Your task to perform on an android device: manage bookmarks in the chrome app Image 0: 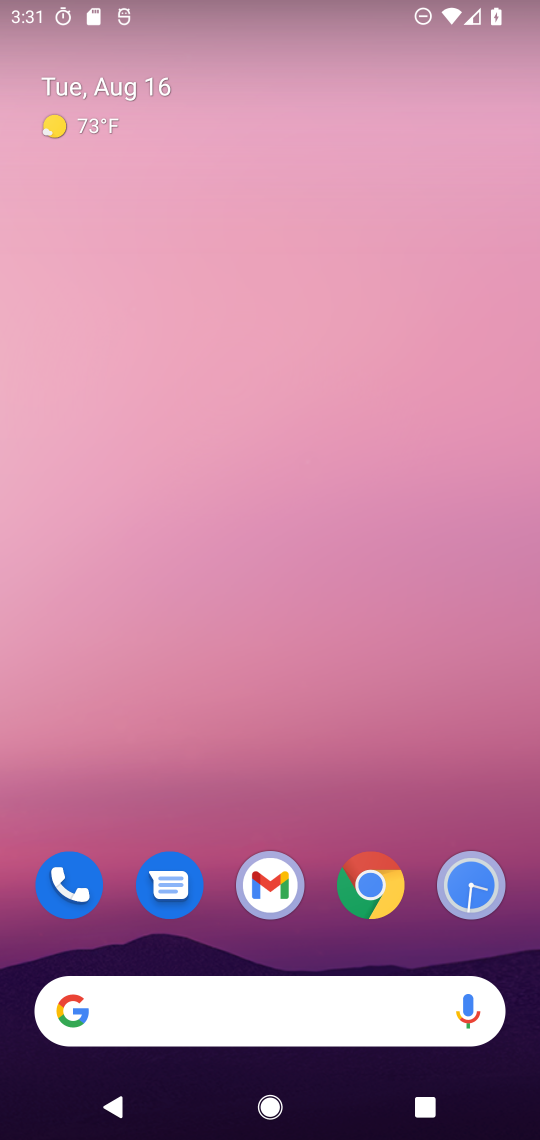
Step 0: drag from (196, 943) to (204, 124)
Your task to perform on an android device: manage bookmarks in the chrome app Image 1: 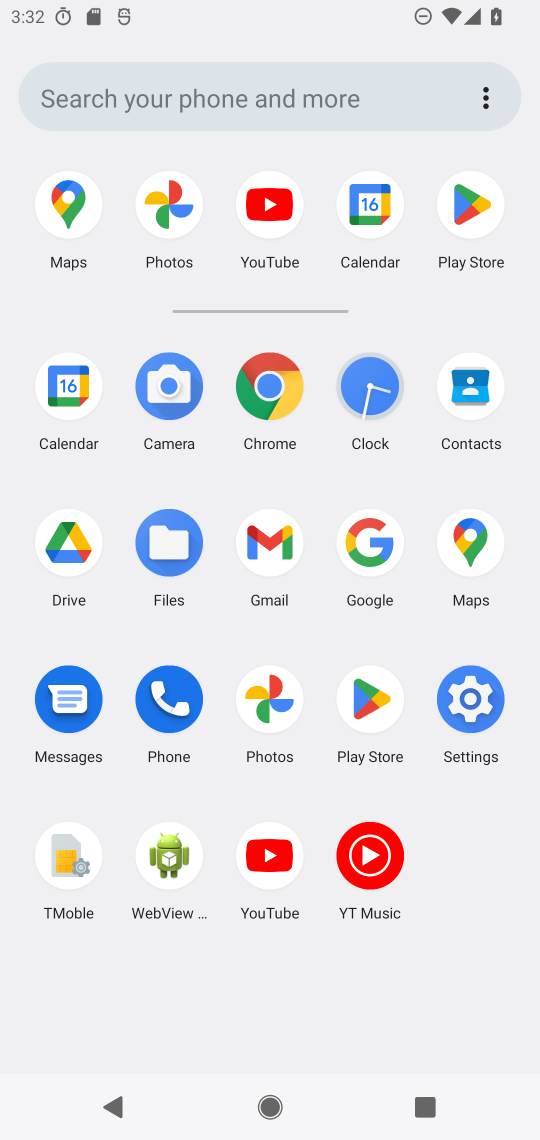
Step 1: click (251, 386)
Your task to perform on an android device: manage bookmarks in the chrome app Image 2: 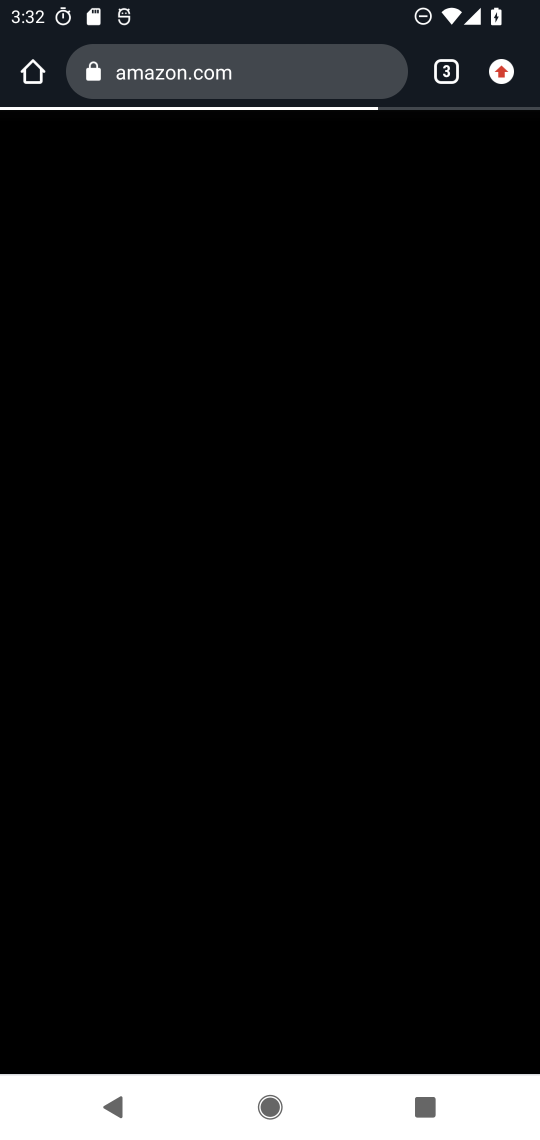
Step 2: click (516, 80)
Your task to perform on an android device: manage bookmarks in the chrome app Image 3: 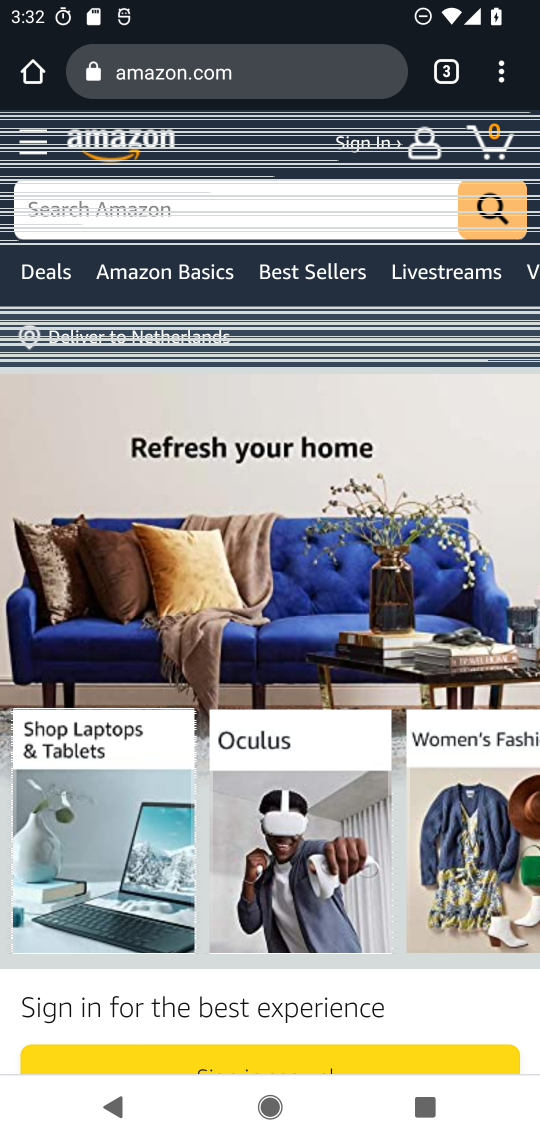
Step 3: click (511, 64)
Your task to perform on an android device: manage bookmarks in the chrome app Image 4: 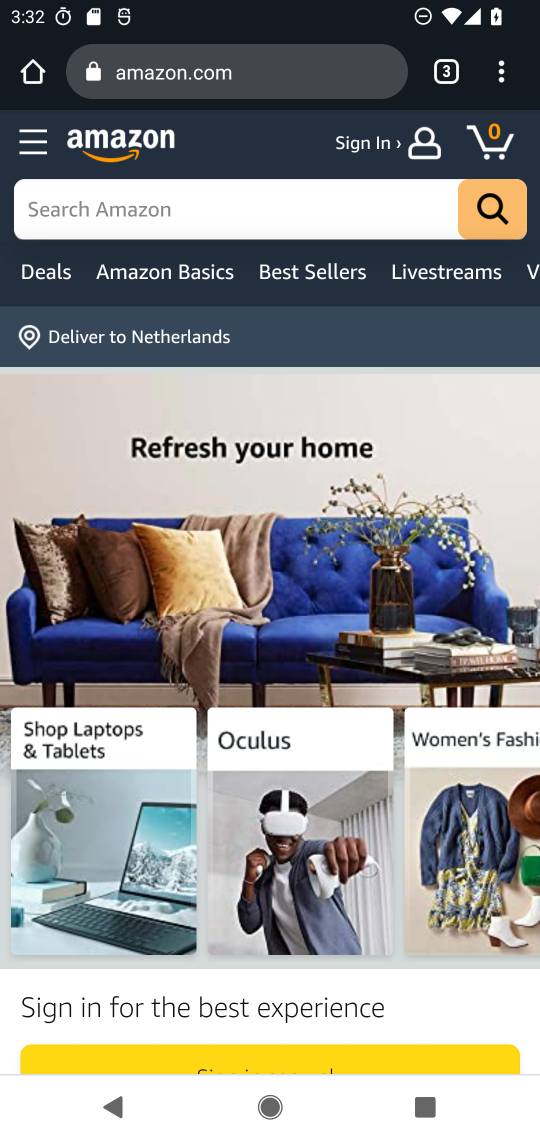
Step 4: click (494, 73)
Your task to perform on an android device: manage bookmarks in the chrome app Image 5: 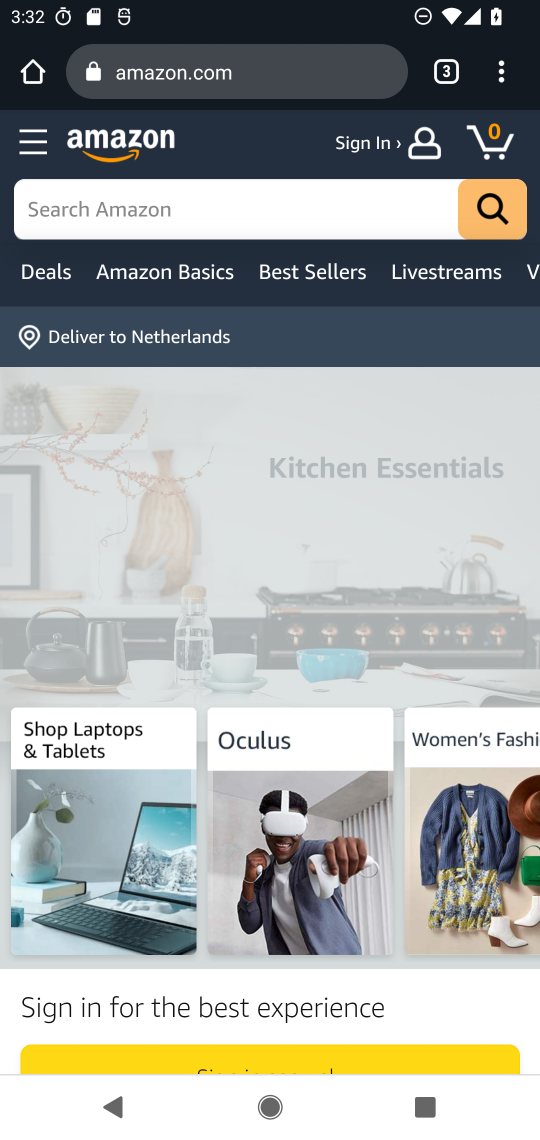
Step 5: click (503, 76)
Your task to perform on an android device: manage bookmarks in the chrome app Image 6: 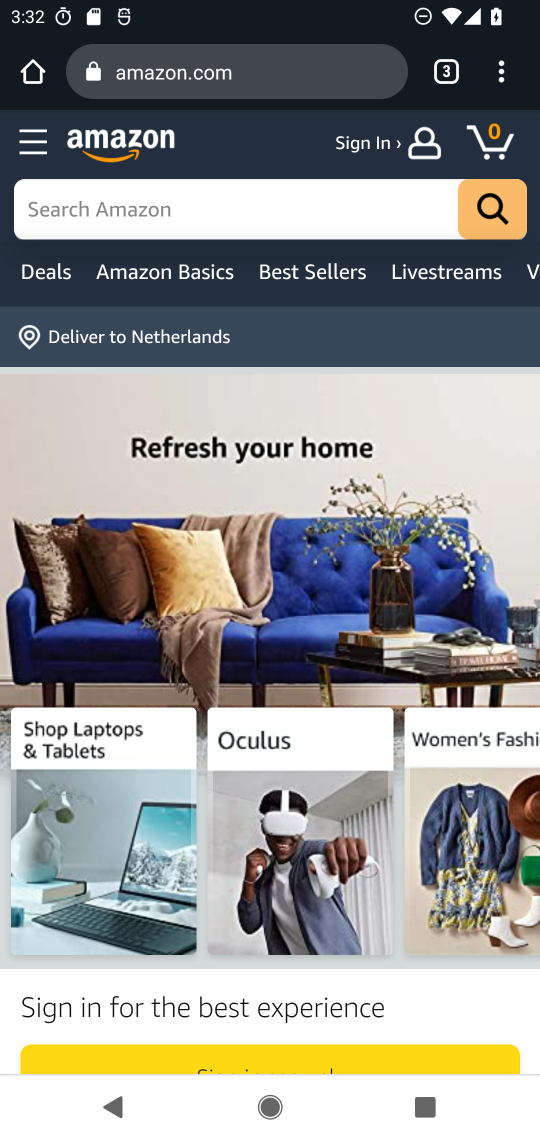
Step 6: click (509, 73)
Your task to perform on an android device: manage bookmarks in the chrome app Image 7: 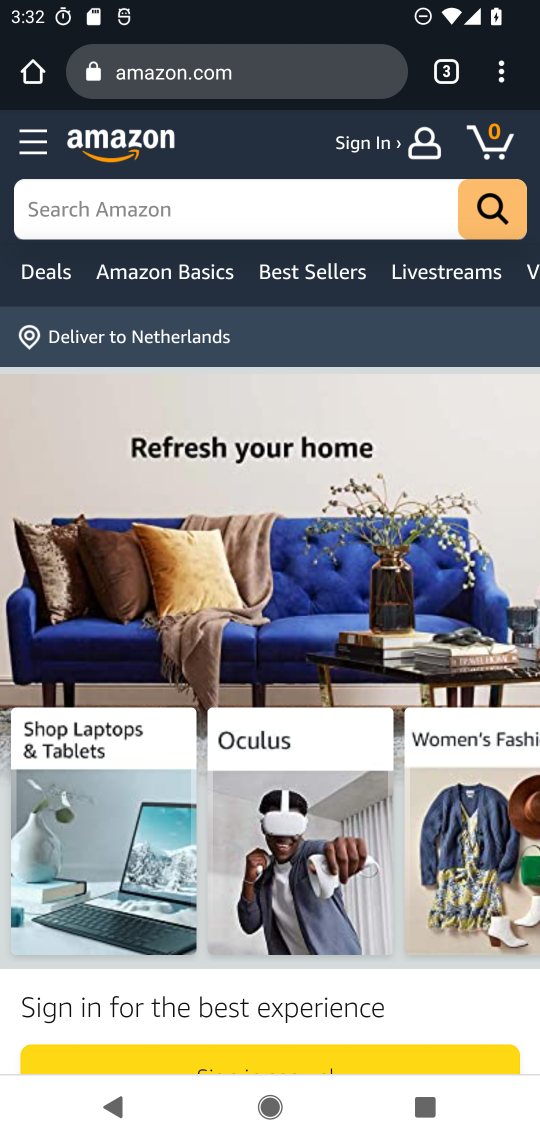
Step 7: click (501, 72)
Your task to perform on an android device: manage bookmarks in the chrome app Image 8: 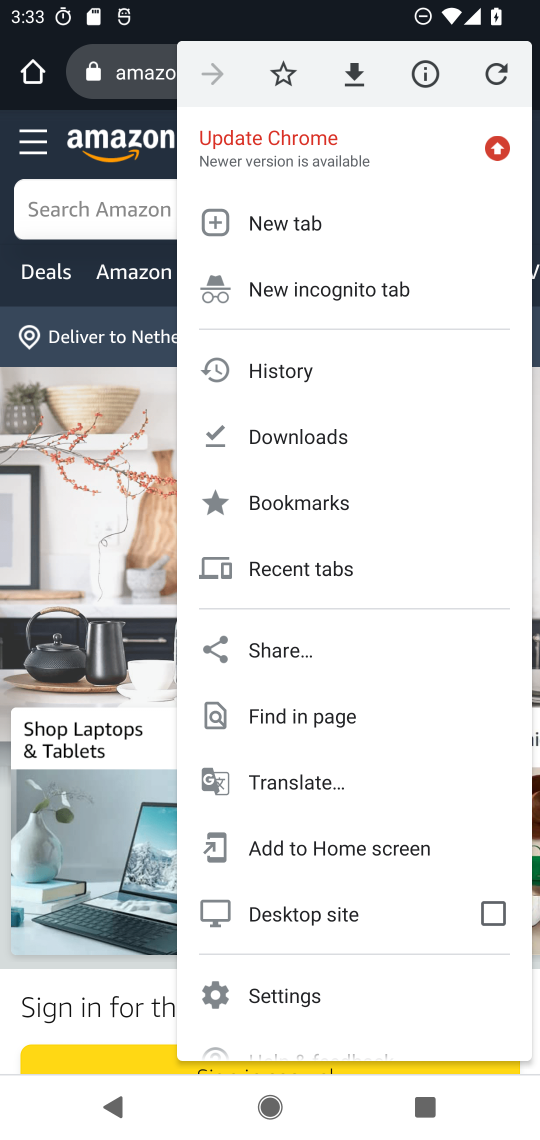
Step 8: click (299, 489)
Your task to perform on an android device: manage bookmarks in the chrome app Image 9: 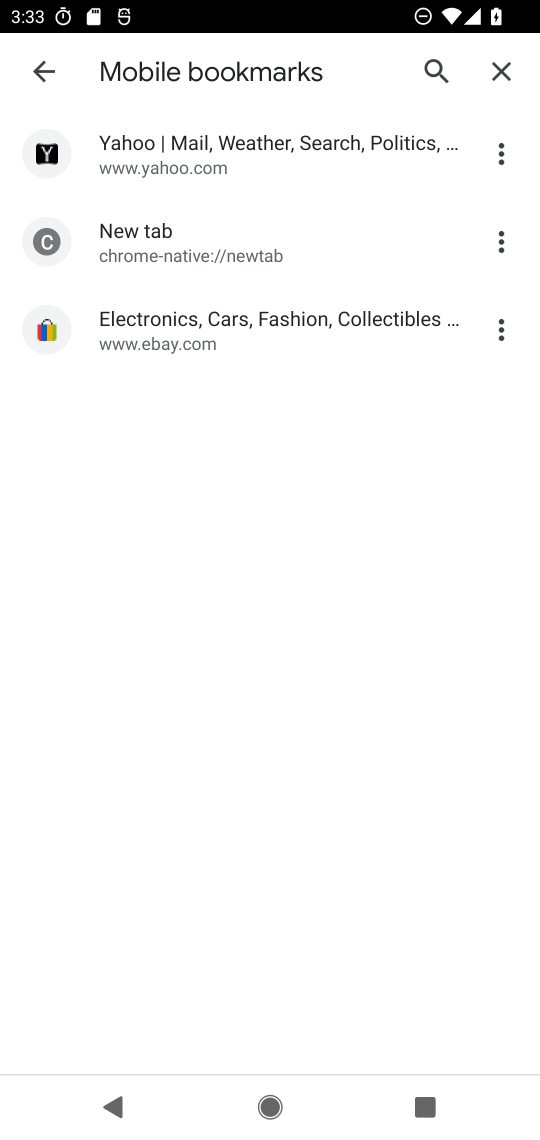
Step 9: click (142, 160)
Your task to perform on an android device: manage bookmarks in the chrome app Image 10: 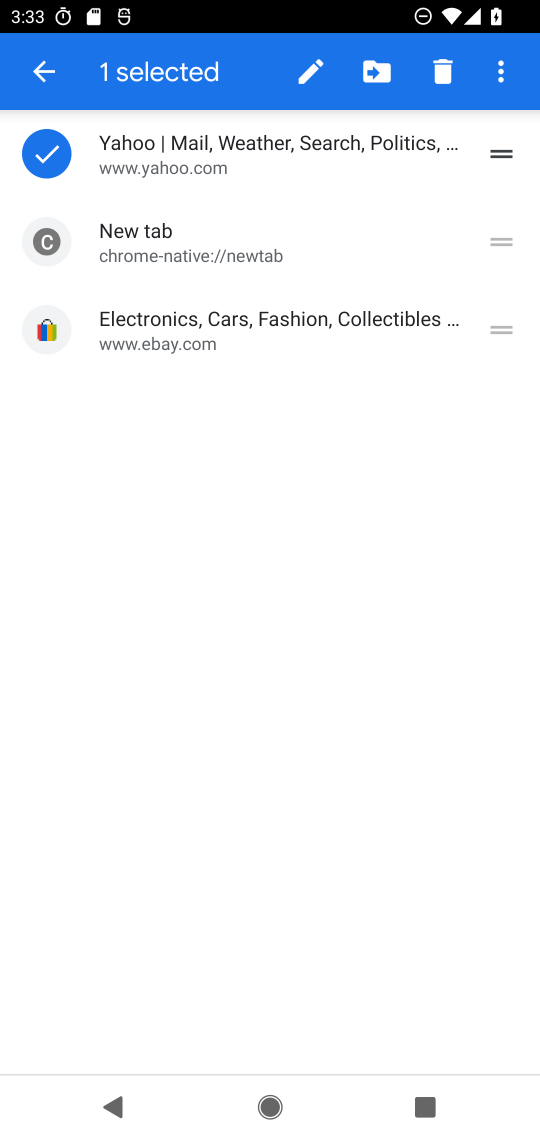
Step 10: click (159, 225)
Your task to perform on an android device: manage bookmarks in the chrome app Image 11: 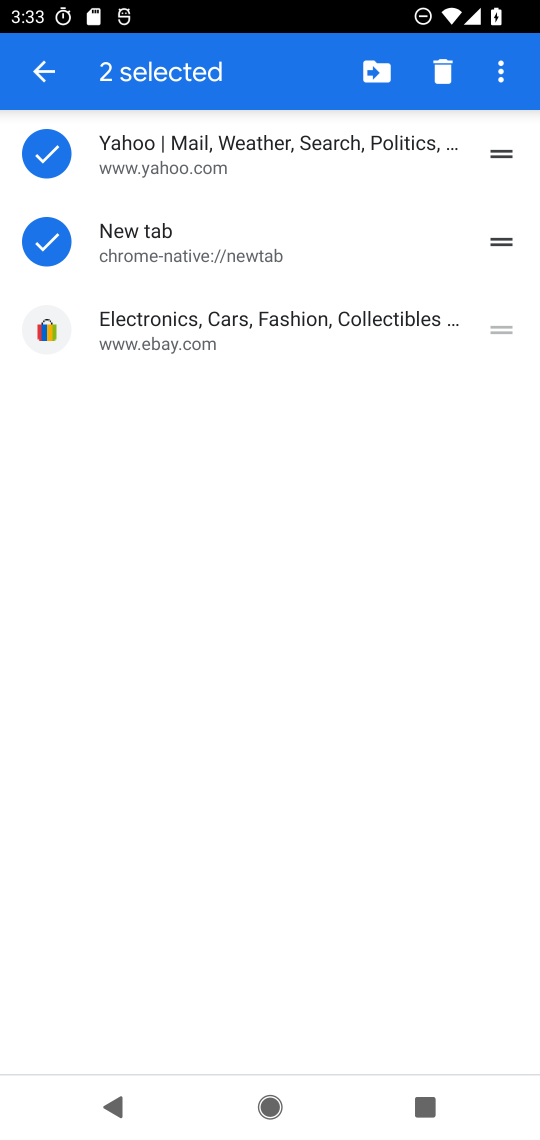
Step 11: click (377, 70)
Your task to perform on an android device: manage bookmarks in the chrome app Image 12: 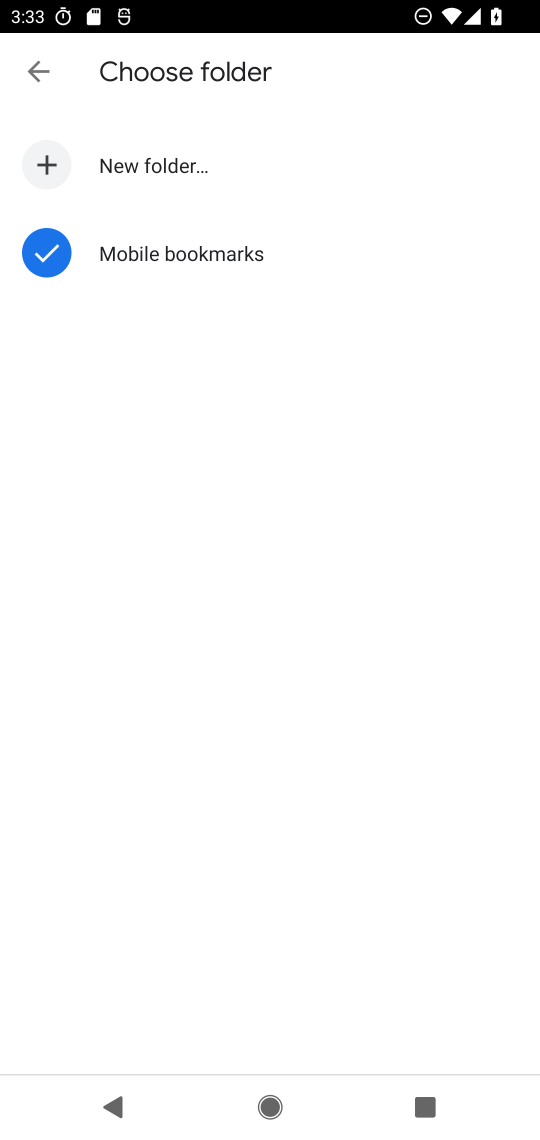
Step 12: click (162, 158)
Your task to perform on an android device: manage bookmarks in the chrome app Image 13: 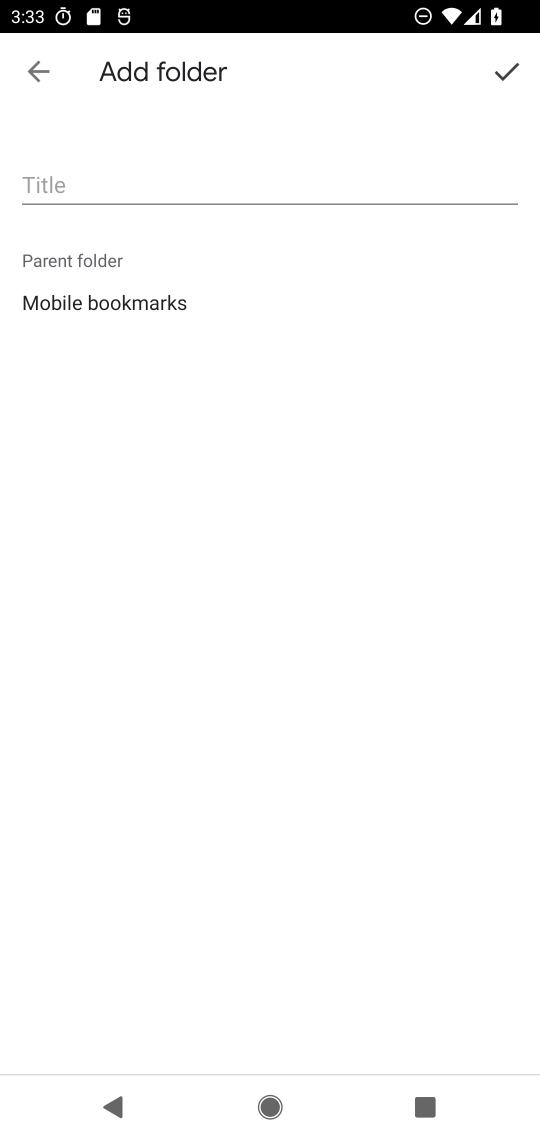
Step 13: click (176, 172)
Your task to perform on an android device: manage bookmarks in the chrome app Image 14: 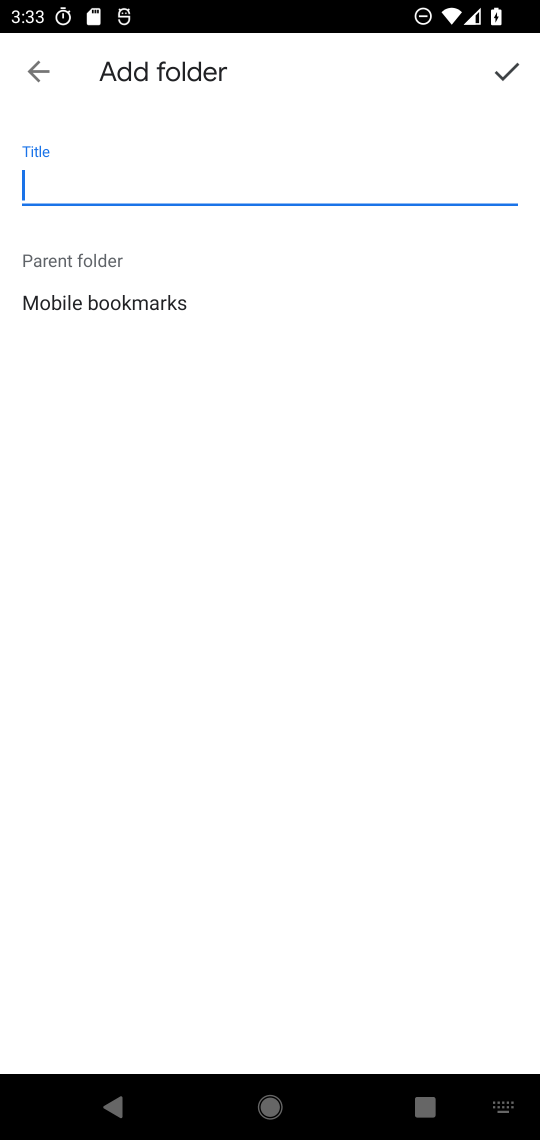
Step 14: type "dimple "
Your task to perform on an android device: manage bookmarks in the chrome app Image 15: 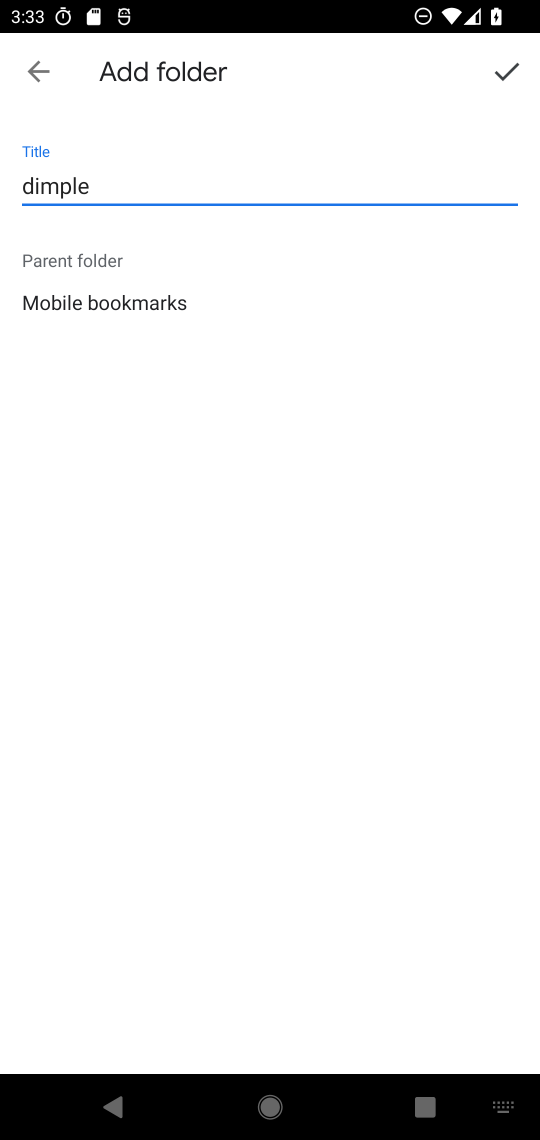
Step 15: click (508, 66)
Your task to perform on an android device: manage bookmarks in the chrome app Image 16: 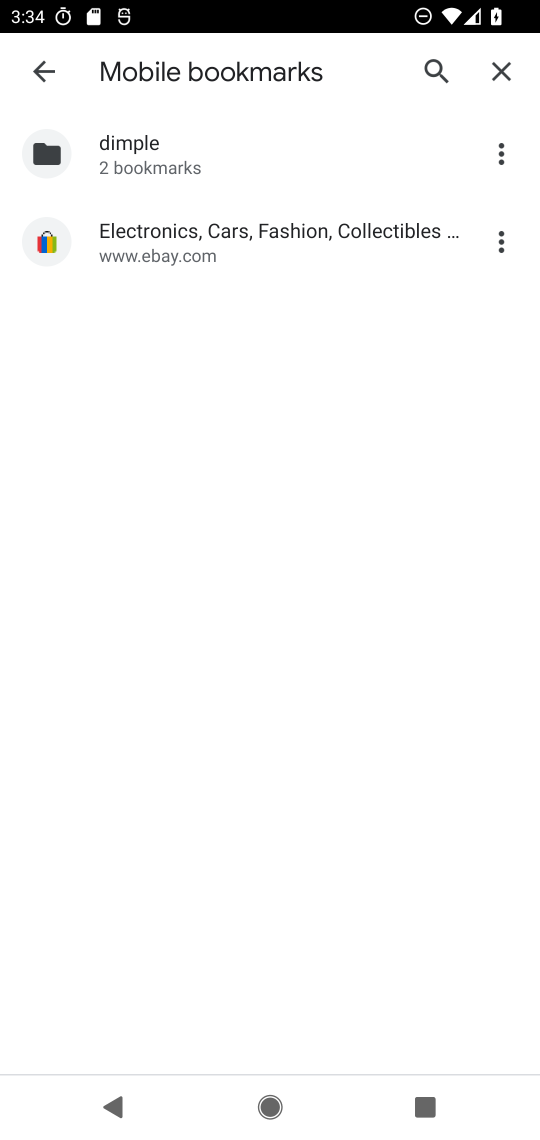
Step 16: task complete